Your task to perform on an android device: Open the phone app and click the voicemail tab. Image 0: 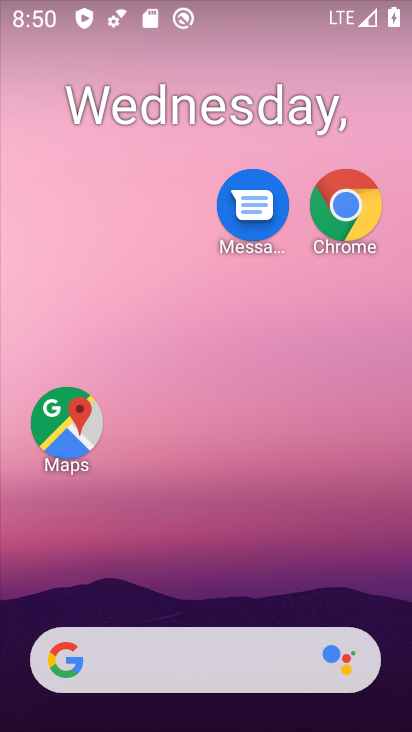
Step 0: click (375, 178)
Your task to perform on an android device: Open the phone app and click the voicemail tab. Image 1: 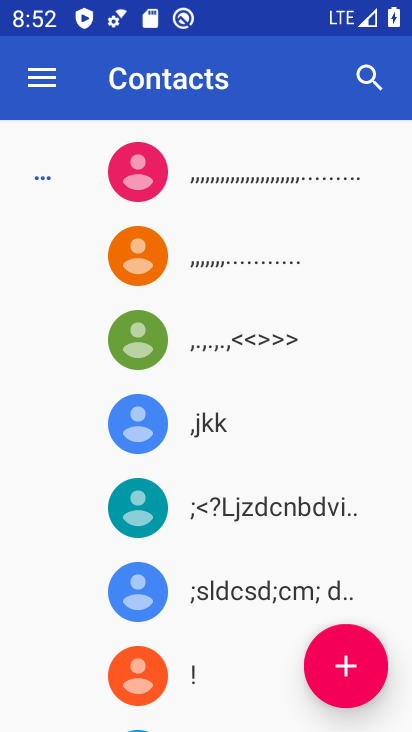
Step 1: drag from (183, 538) to (247, 195)
Your task to perform on an android device: Open the phone app and click the voicemail tab. Image 2: 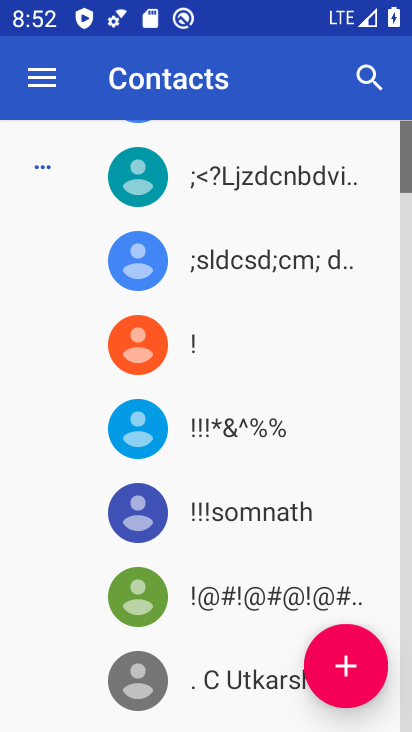
Step 2: press home button
Your task to perform on an android device: Open the phone app and click the voicemail tab. Image 3: 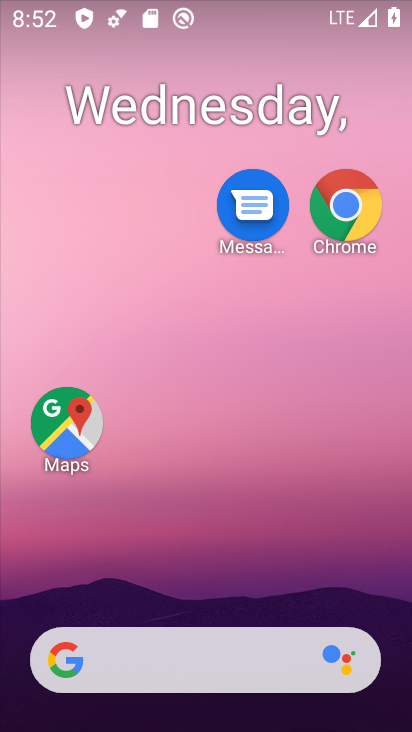
Step 3: drag from (234, 545) to (316, 709)
Your task to perform on an android device: Open the phone app and click the voicemail tab. Image 4: 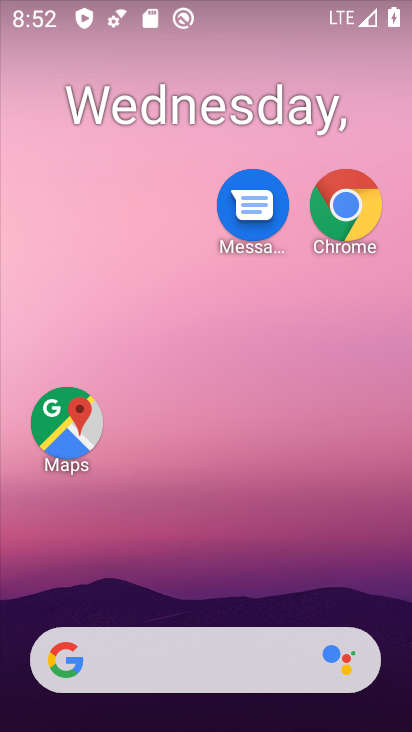
Step 4: drag from (210, 577) to (192, 156)
Your task to perform on an android device: Open the phone app and click the voicemail tab. Image 5: 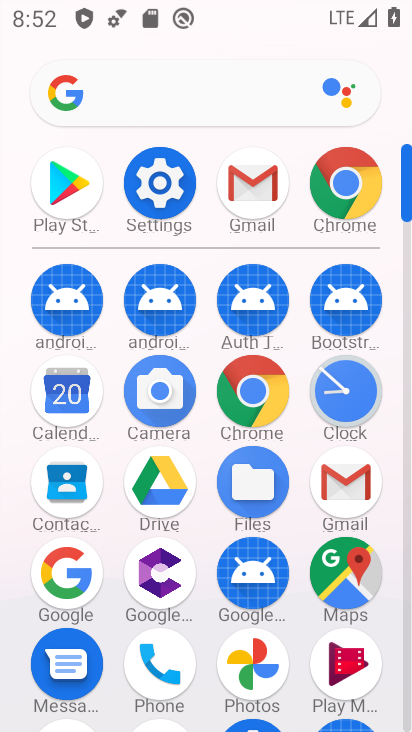
Step 5: click (154, 665)
Your task to perform on an android device: Open the phone app and click the voicemail tab. Image 6: 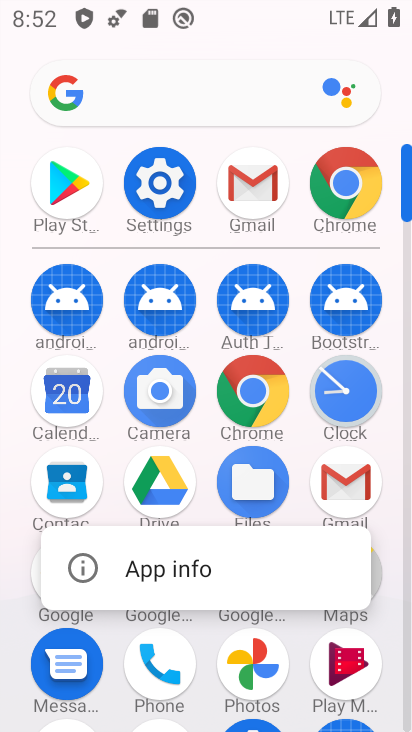
Step 6: click (157, 562)
Your task to perform on an android device: Open the phone app and click the voicemail tab. Image 7: 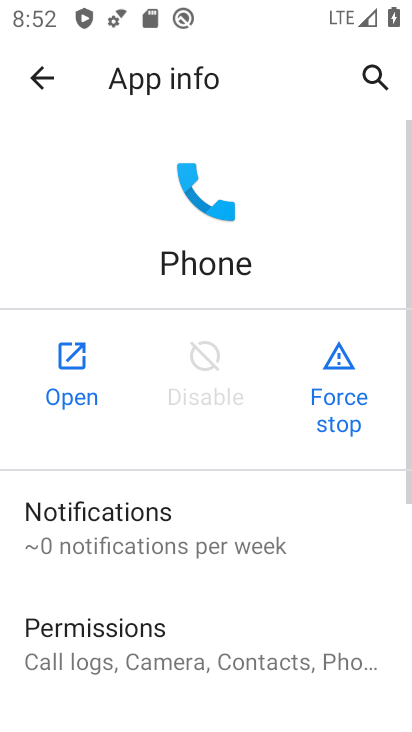
Step 7: click (77, 373)
Your task to perform on an android device: Open the phone app and click the voicemail tab. Image 8: 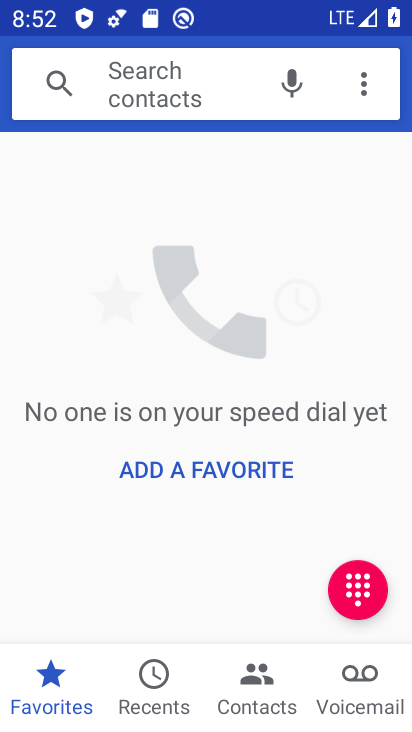
Step 8: drag from (224, 450) to (226, 313)
Your task to perform on an android device: Open the phone app and click the voicemail tab. Image 9: 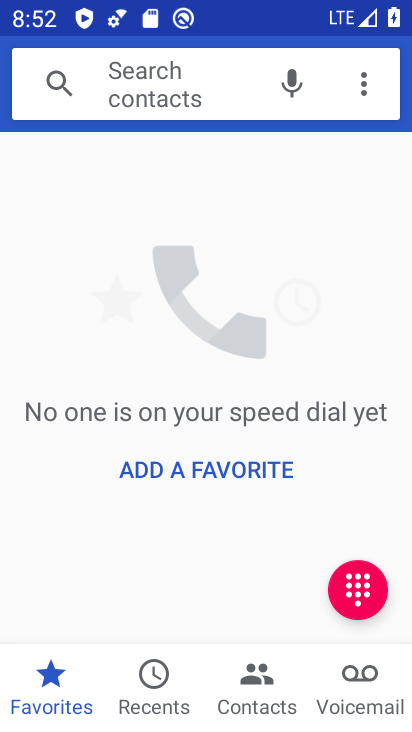
Step 9: drag from (224, 573) to (254, 277)
Your task to perform on an android device: Open the phone app and click the voicemail tab. Image 10: 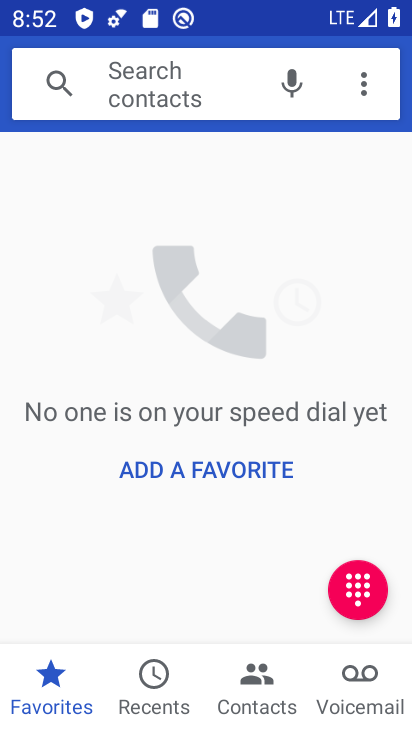
Step 10: click (352, 681)
Your task to perform on an android device: Open the phone app and click the voicemail tab. Image 11: 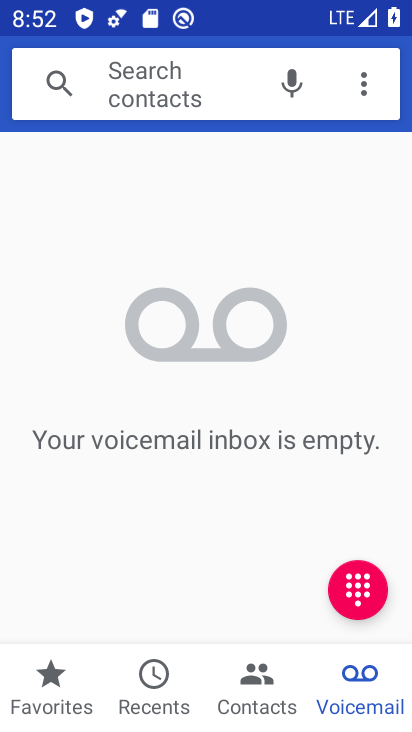
Step 11: task complete